Your task to perform on an android device: show emergency info Image 0: 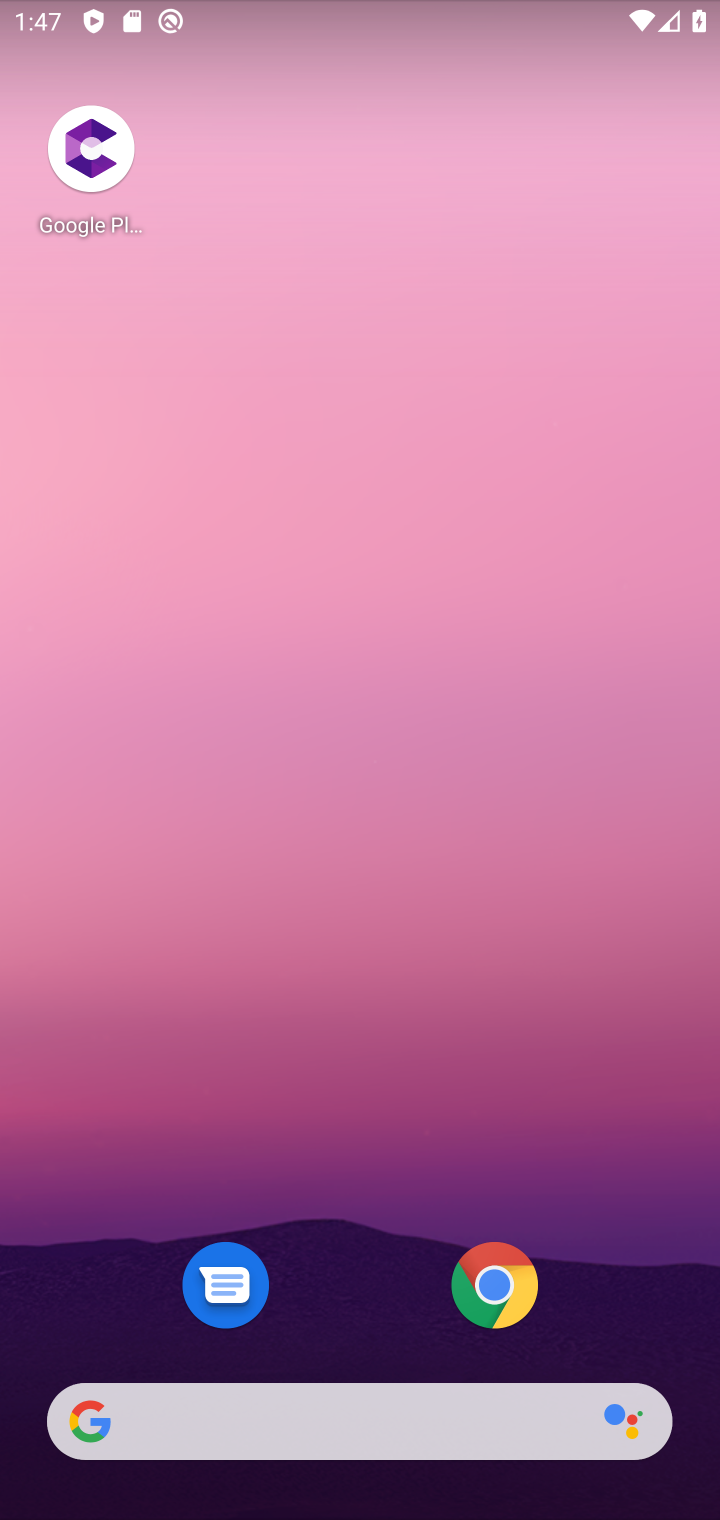
Step 0: drag from (179, 168) to (693, 389)
Your task to perform on an android device: show emergency info Image 1: 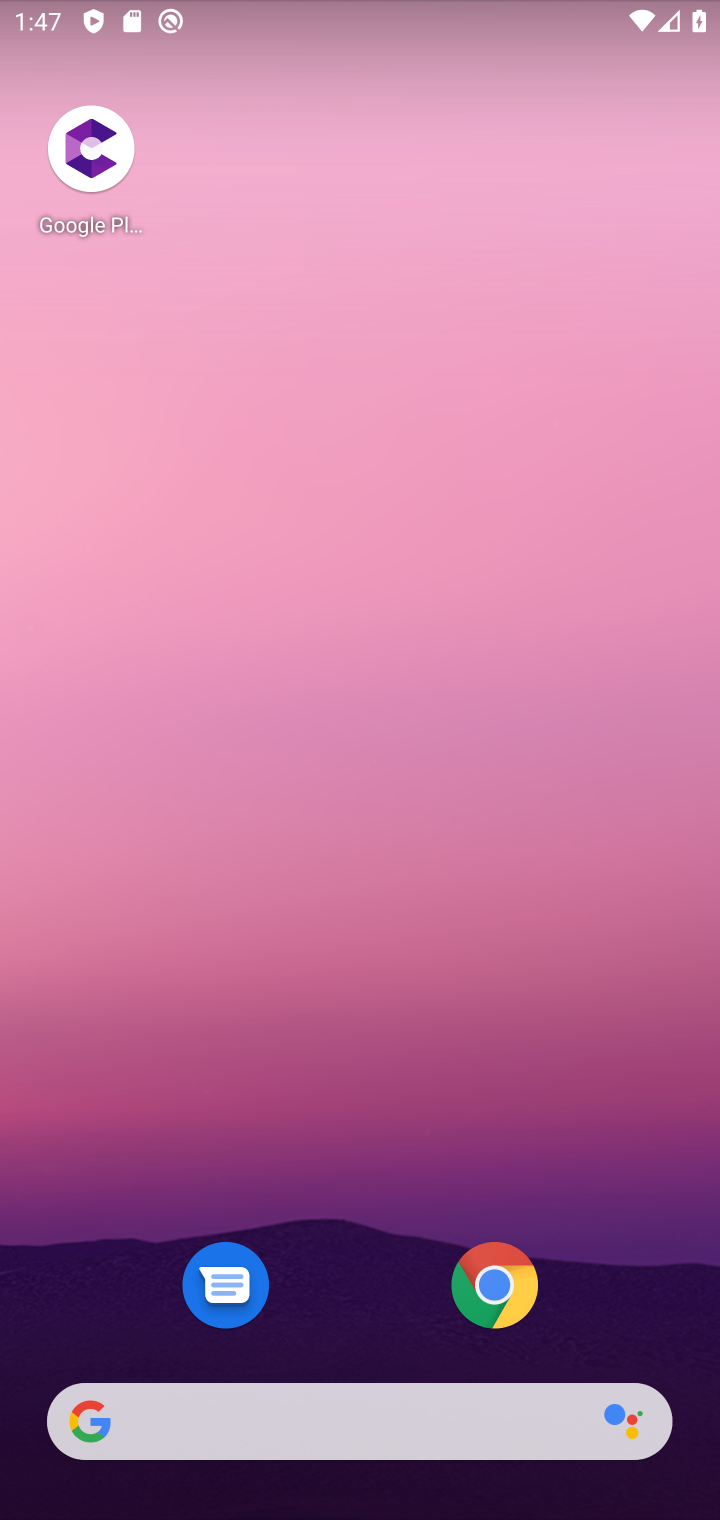
Step 1: drag from (318, 700) to (247, 317)
Your task to perform on an android device: show emergency info Image 2: 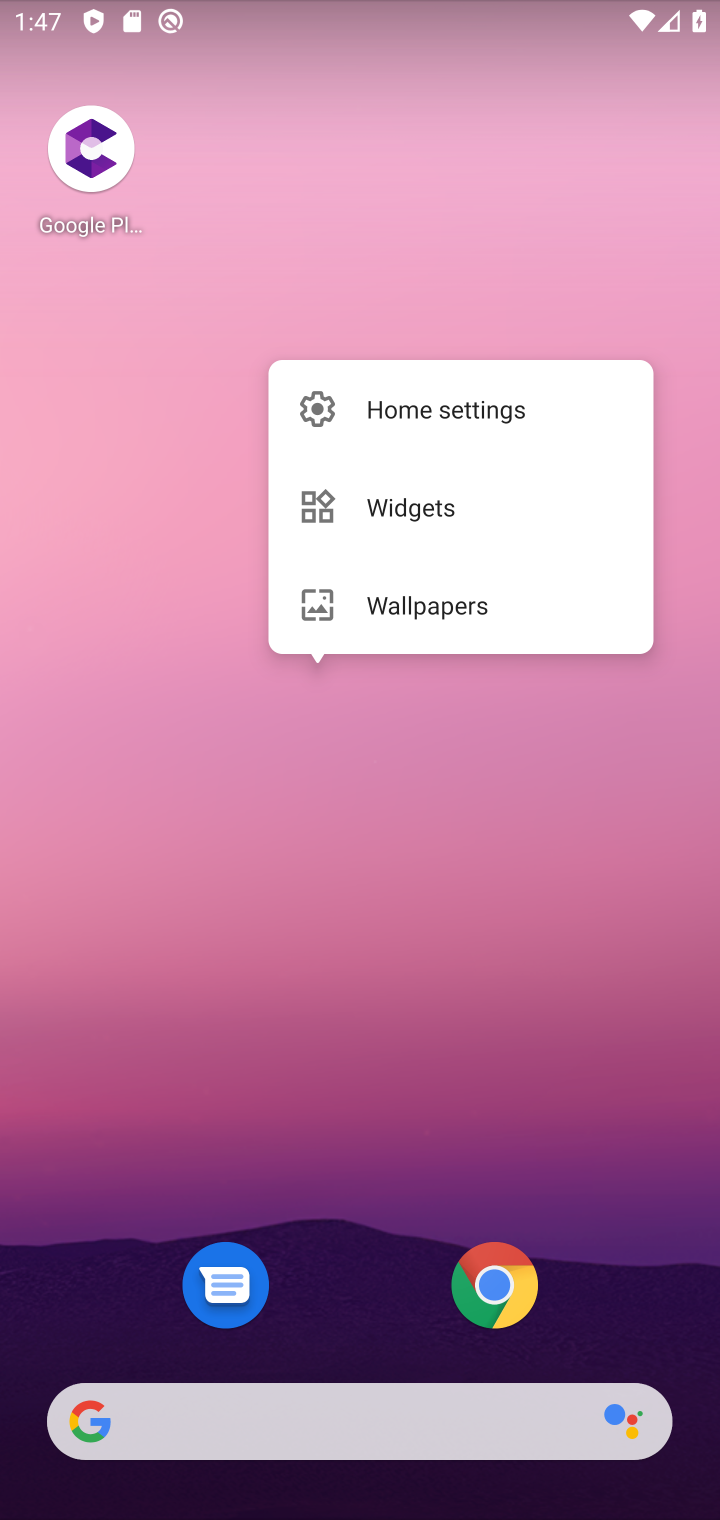
Step 2: drag from (345, 290) to (233, 229)
Your task to perform on an android device: show emergency info Image 3: 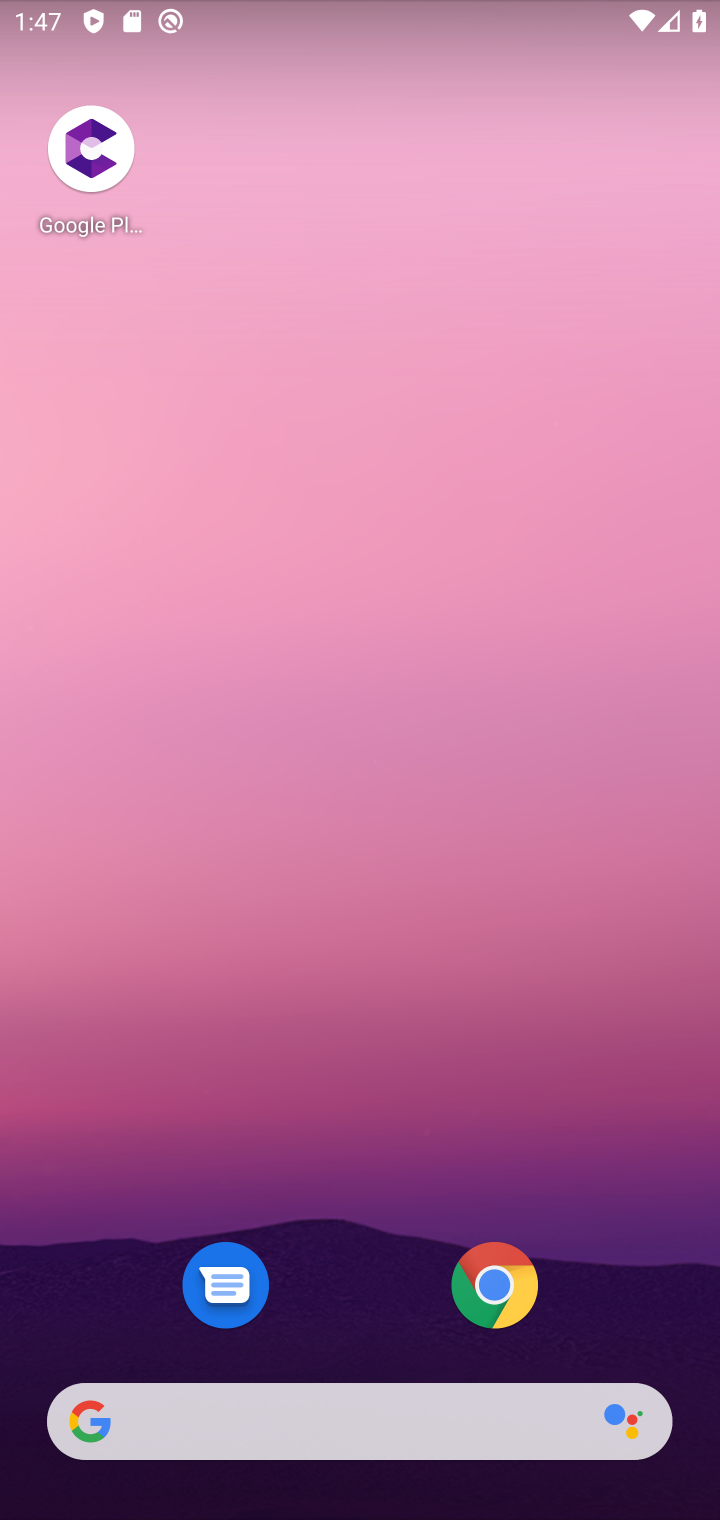
Step 3: click (74, 305)
Your task to perform on an android device: show emergency info Image 4: 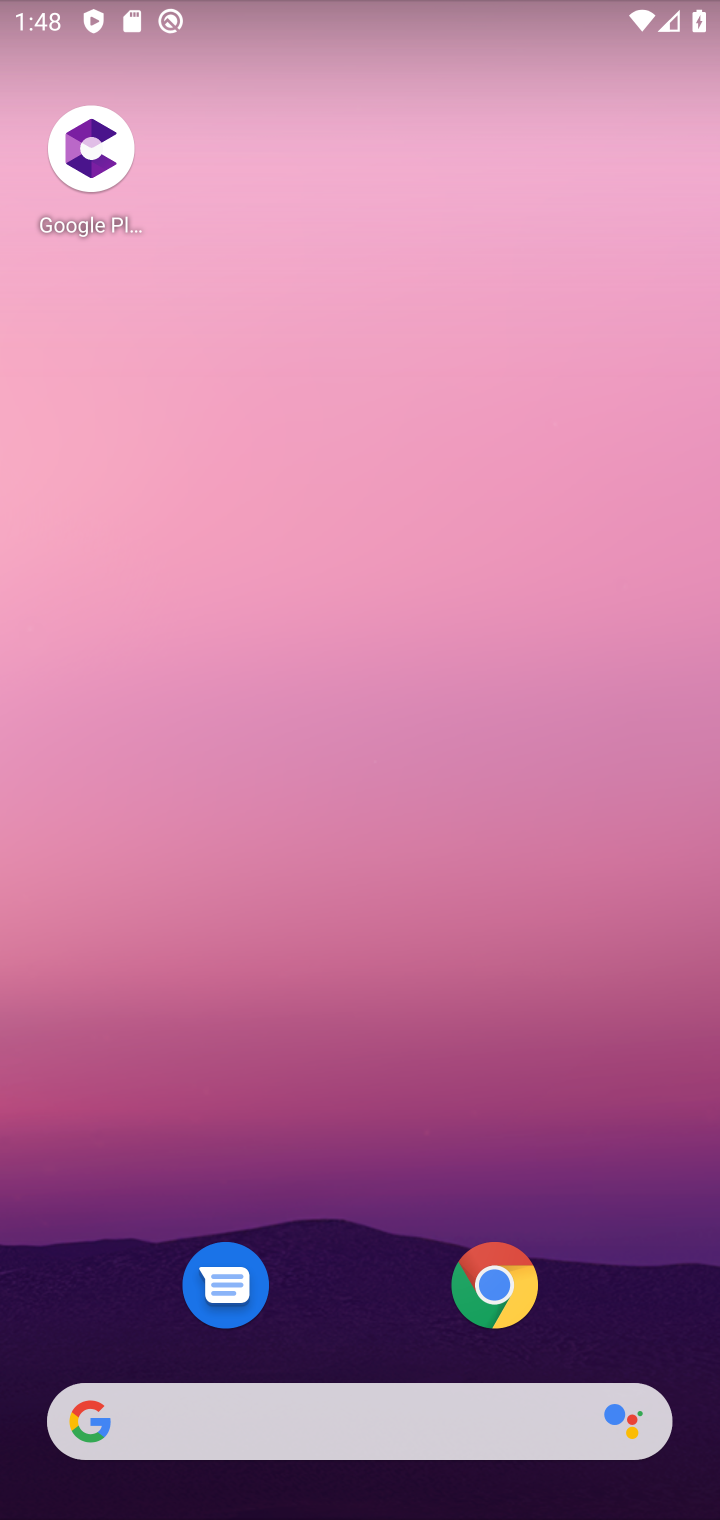
Step 4: drag from (246, 838) to (280, 491)
Your task to perform on an android device: show emergency info Image 5: 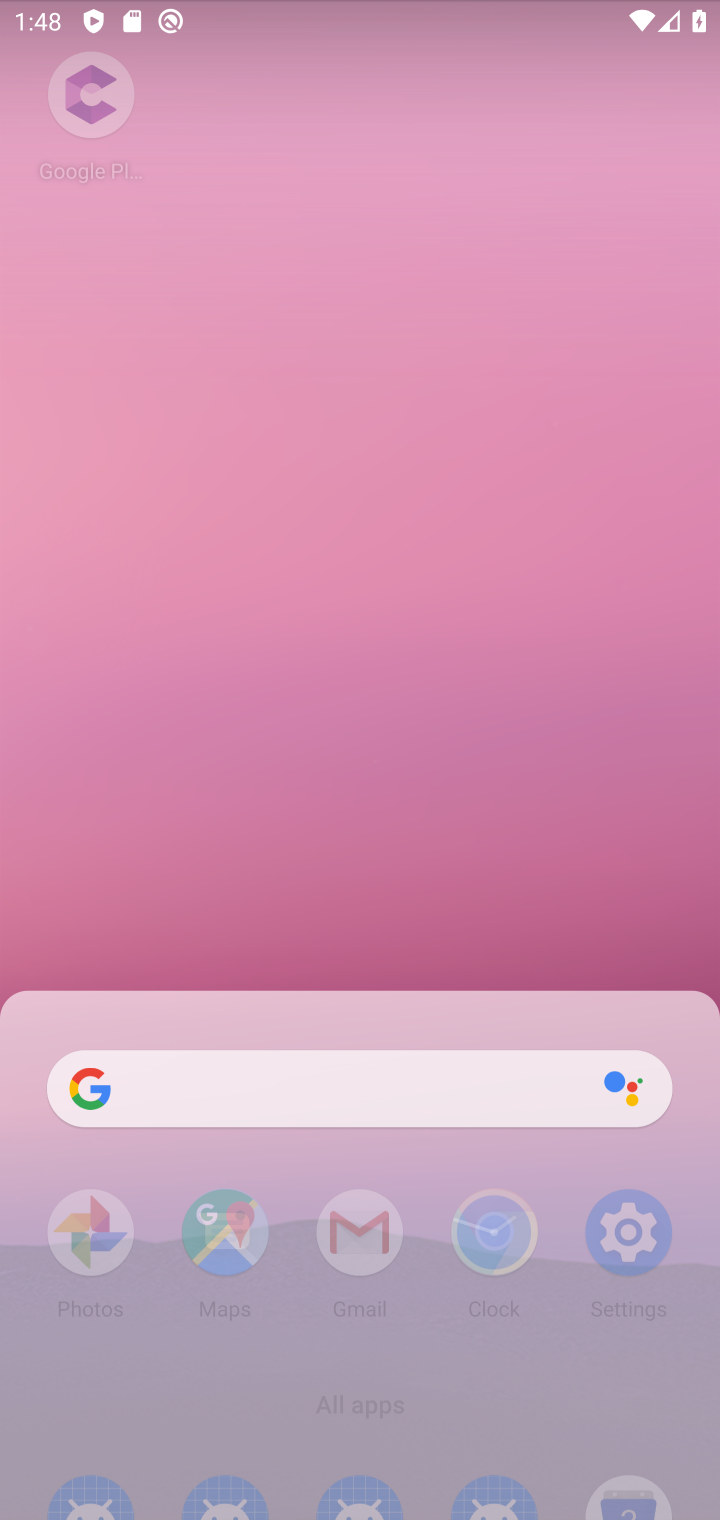
Step 5: drag from (348, 222) to (200, 28)
Your task to perform on an android device: show emergency info Image 6: 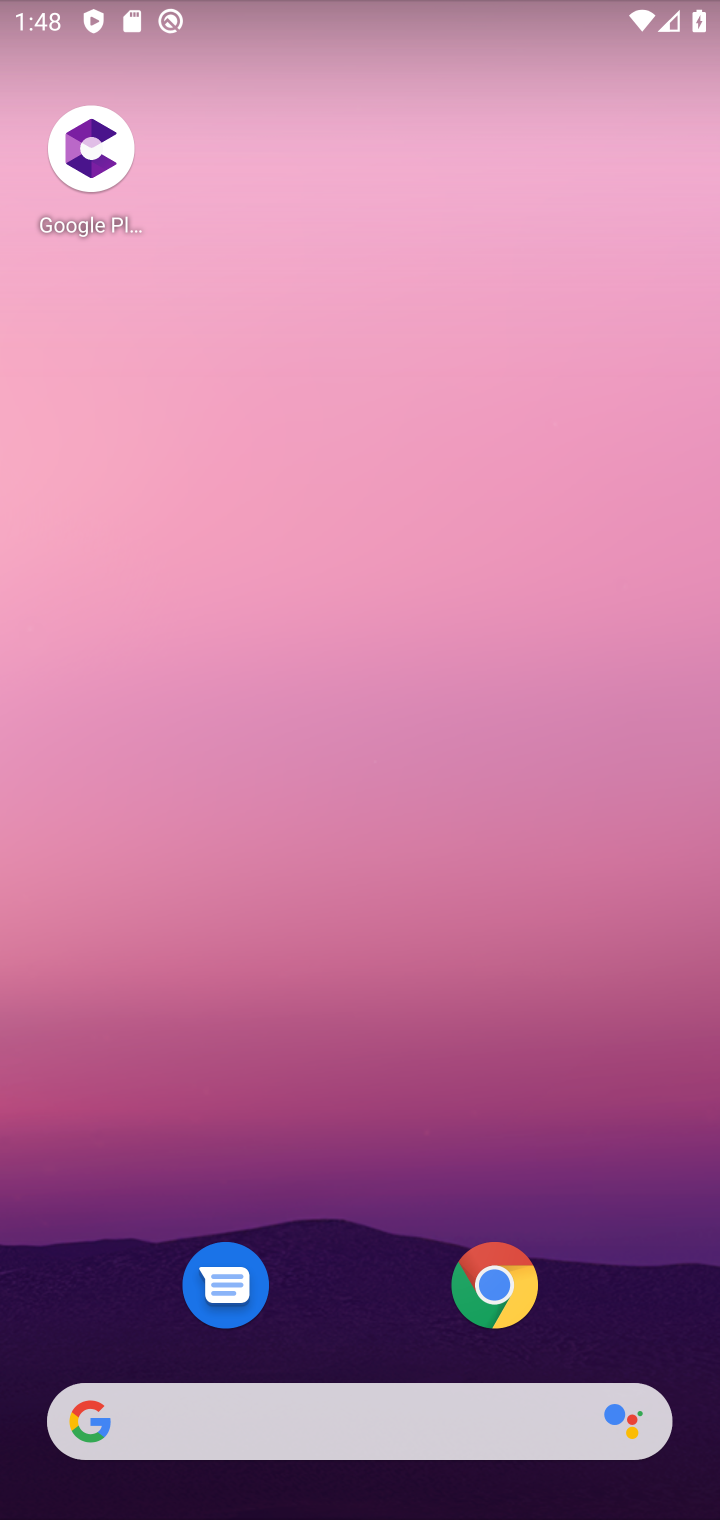
Step 6: drag from (371, 865) to (332, 408)
Your task to perform on an android device: show emergency info Image 7: 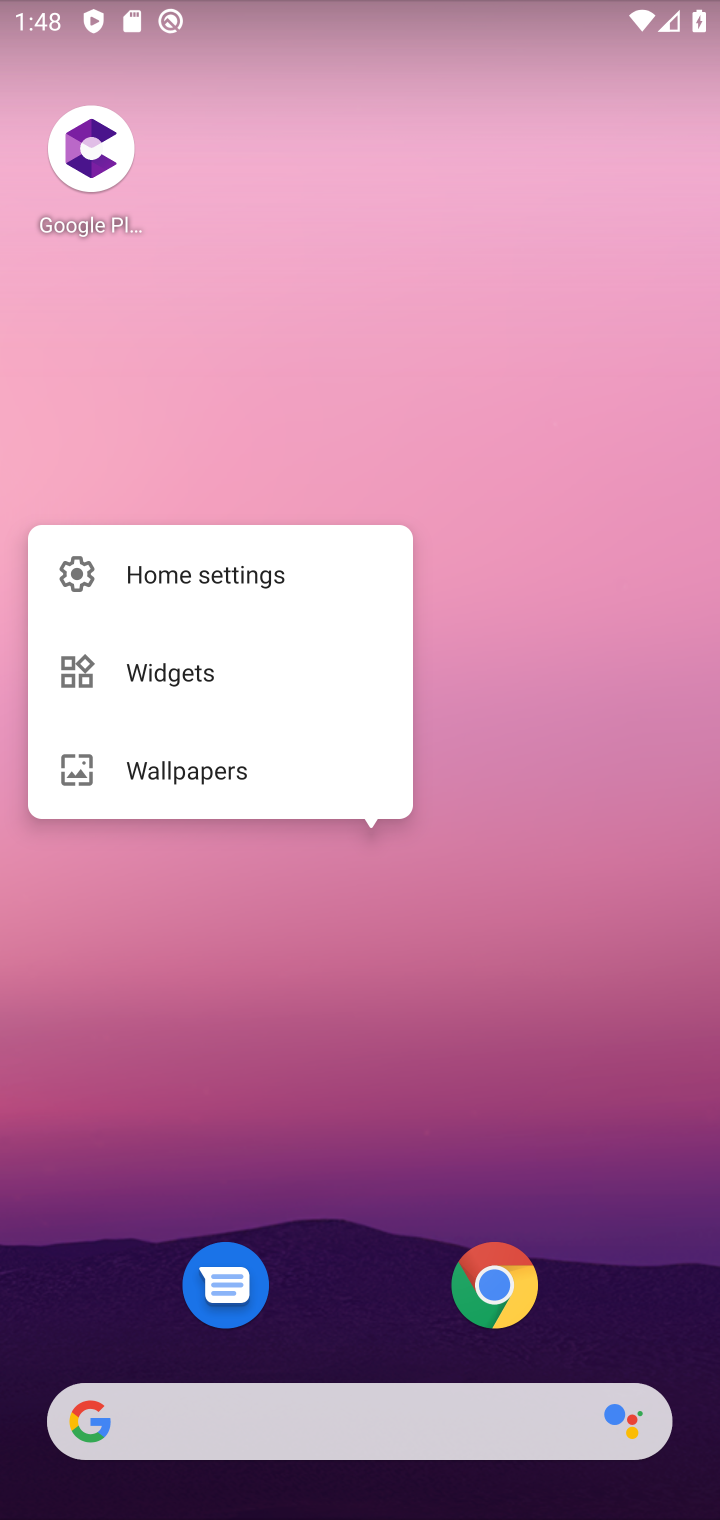
Step 7: click (308, 108)
Your task to perform on an android device: show emergency info Image 8: 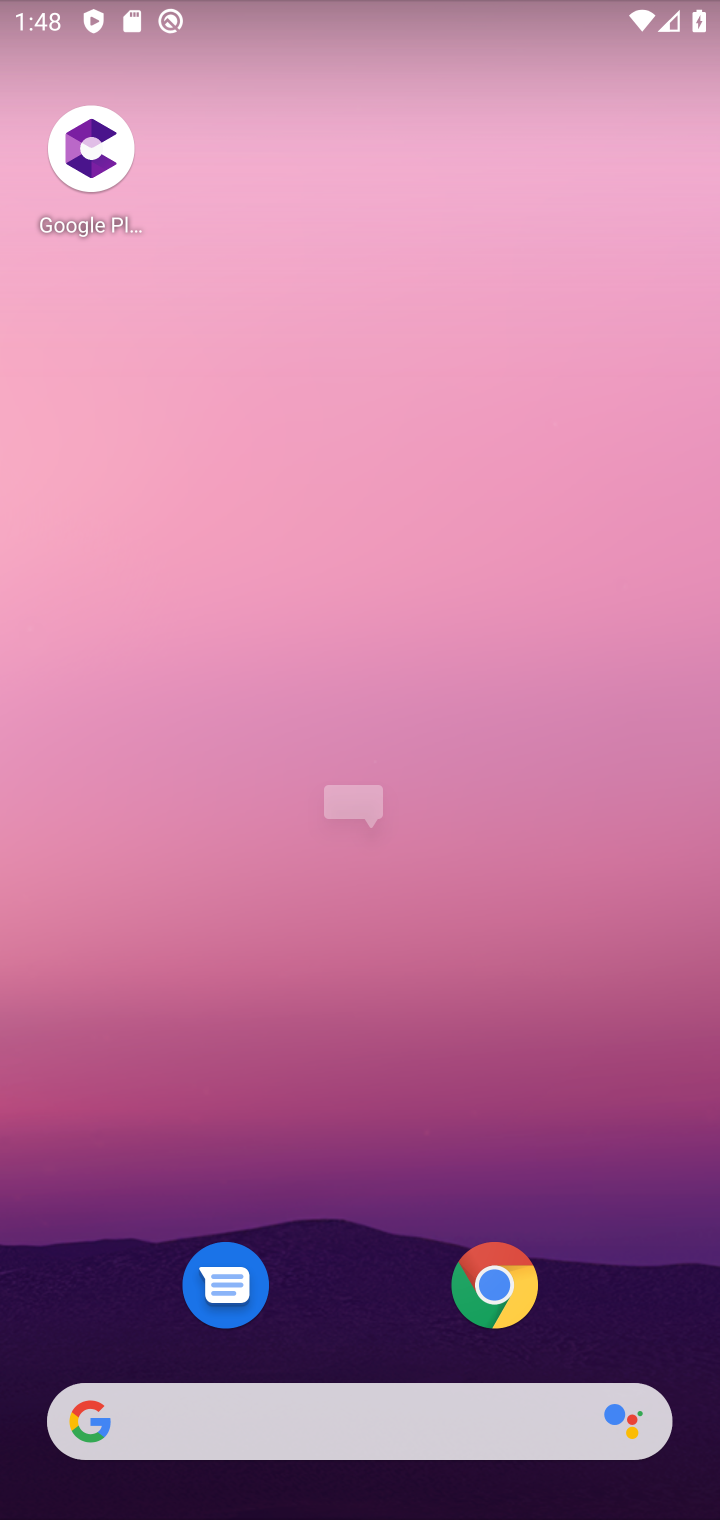
Step 8: task complete